Your task to perform on an android device: change the clock style Image 0: 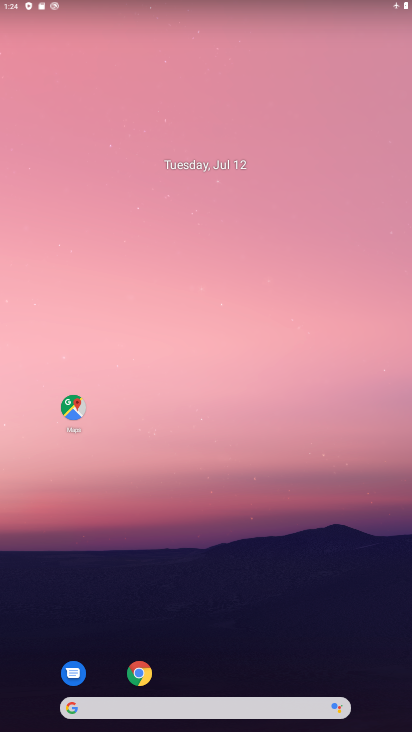
Step 0: drag from (225, 698) to (253, 335)
Your task to perform on an android device: change the clock style Image 1: 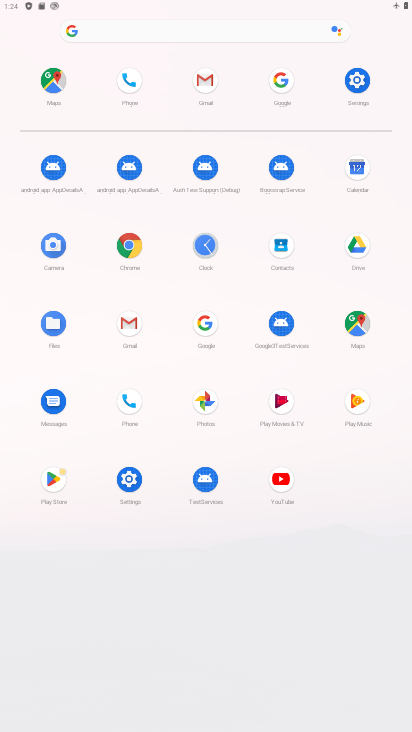
Step 1: click (213, 236)
Your task to perform on an android device: change the clock style Image 2: 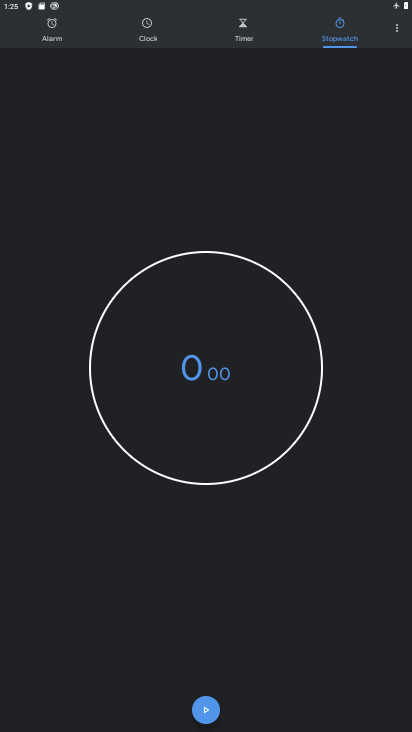
Step 2: click (398, 24)
Your task to perform on an android device: change the clock style Image 3: 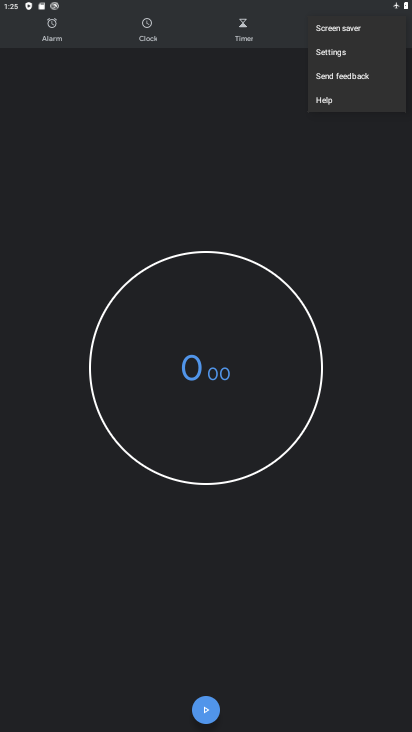
Step 3: click (327, 56)
Your task to perform on an android device: change the clock style Image 4: 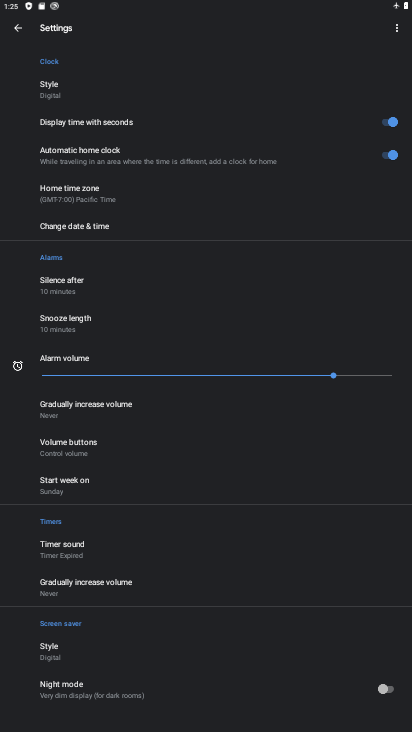
Step 4: click (106, 89)
Your task to perform on an android device: change the clock style Image 5: 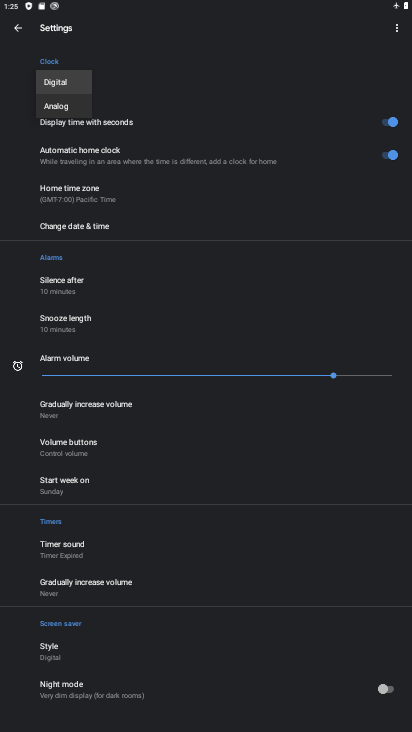
Step 5: click (70, 115)
Your task to perform on an android device: change the clock style Image 6: 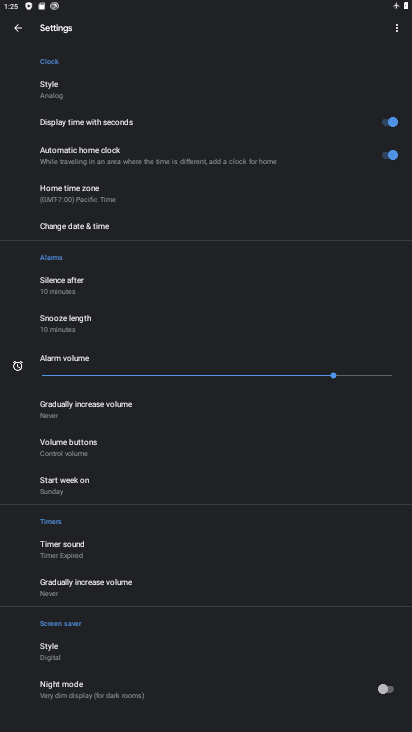
Step 6: task complete